Your task to perform on an android device: open app "ColorNote Notepad Notes" (install if not already installed) Image 0: 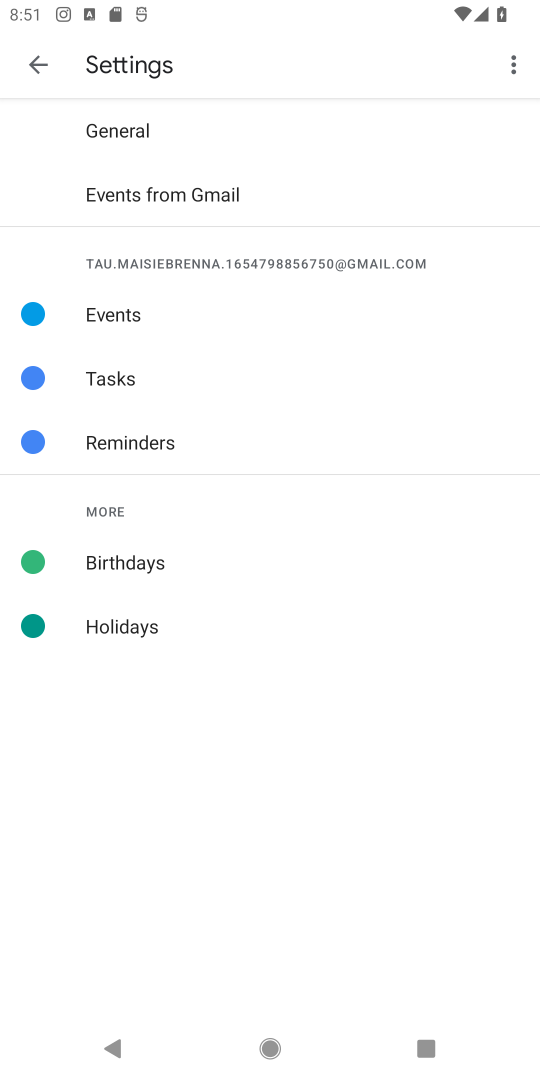
Step 0: press home button
Your task to perform on an android device: open app "ColorNote Notepad Notes" (install if not already installed) Image 1: 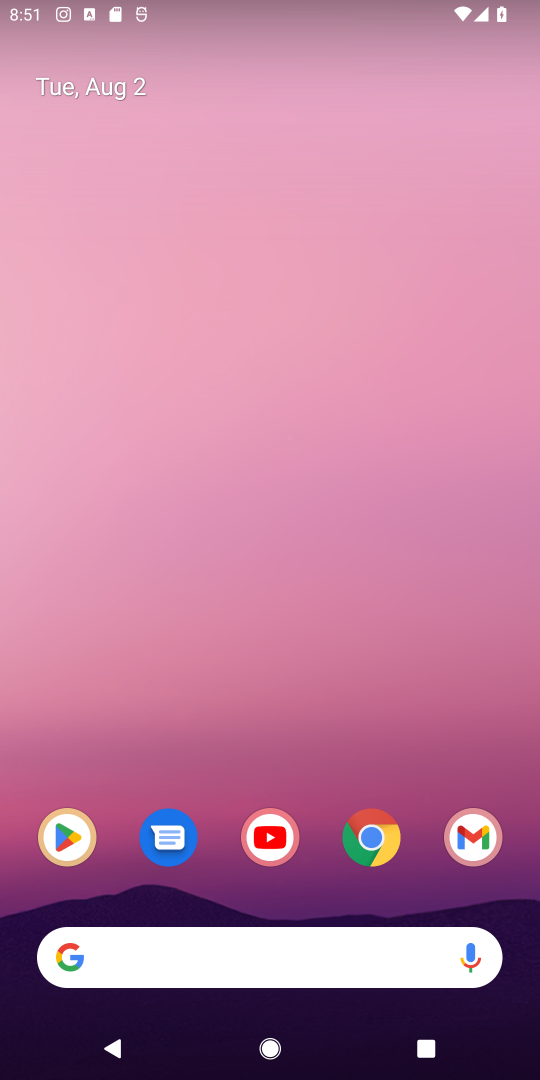
Step 1: click (76, 846)
Your task to perform on an android device: open app "ColorNote Notepad Notes" (install if not already installed) Image 2: 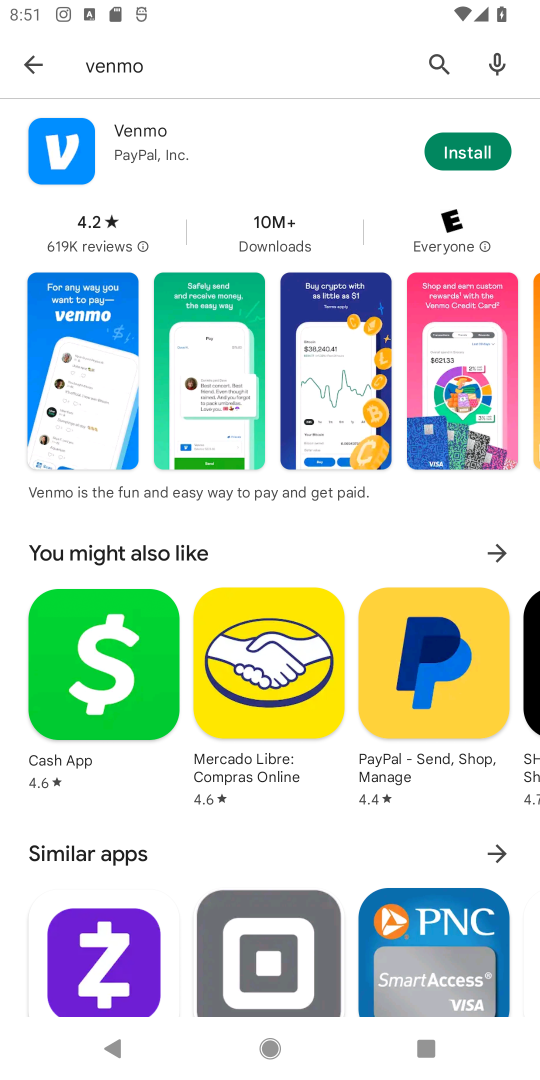
Step 2: click (443, 61)
Your task to perform on an android device: open app "ColorNote Notepad Notes" (install if not already installed) Image 3: 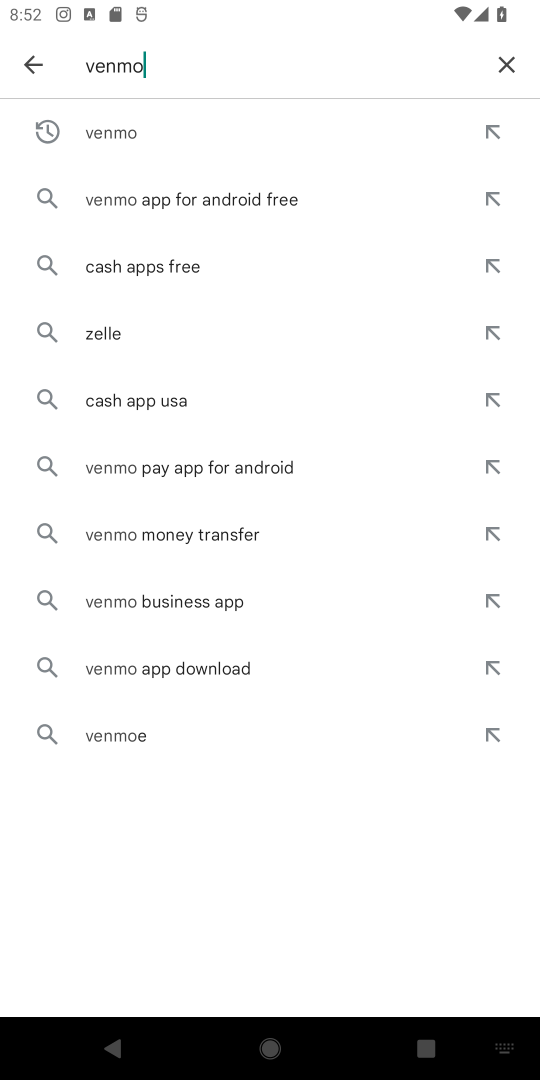
Step 3: click (500, 54)
Your task to perform on an android device: open app "ColorNote Notepad Notes" (install if not already installed) Image 4: 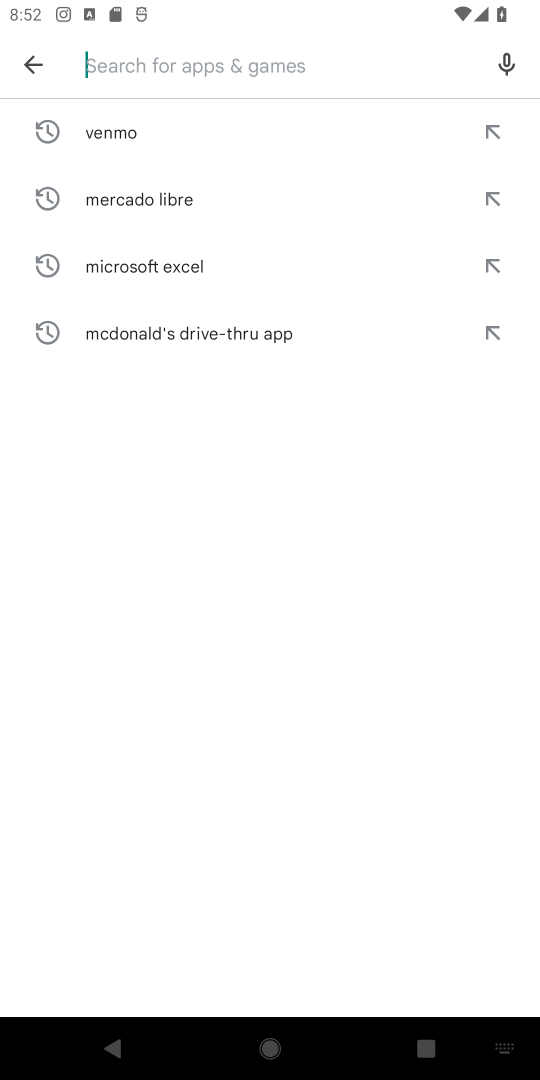
Step 4: type "ColorNote Notepad Notes"
Your task to perform on an android device: open app "ColorNote Notepad Notes" (install if not already installed) Image 5: 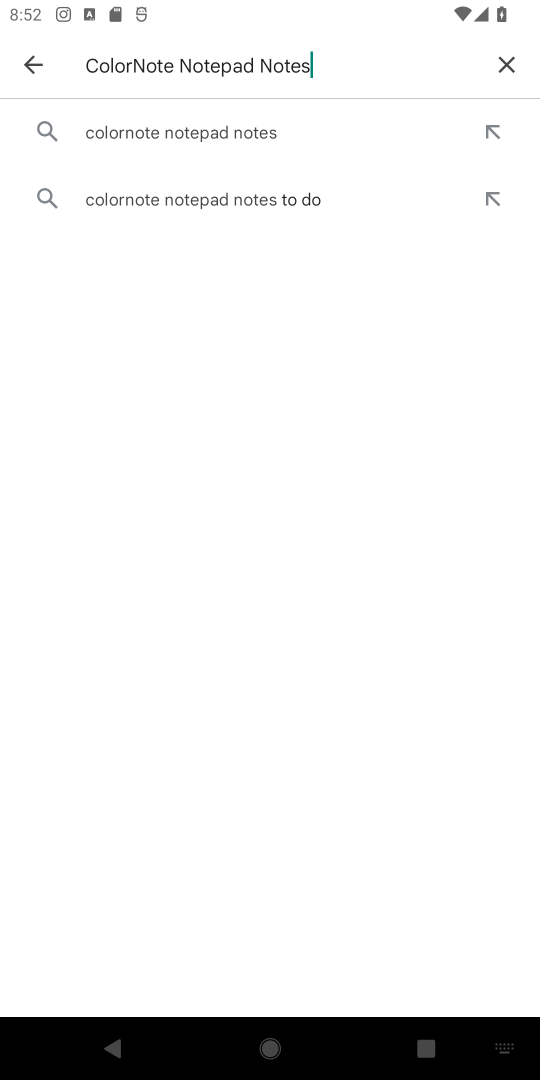
Step 5: click (184, 133)
Your task to perform on an android device: open app "ColorNote Notepad Notes" (install if not already installed) Image 6: 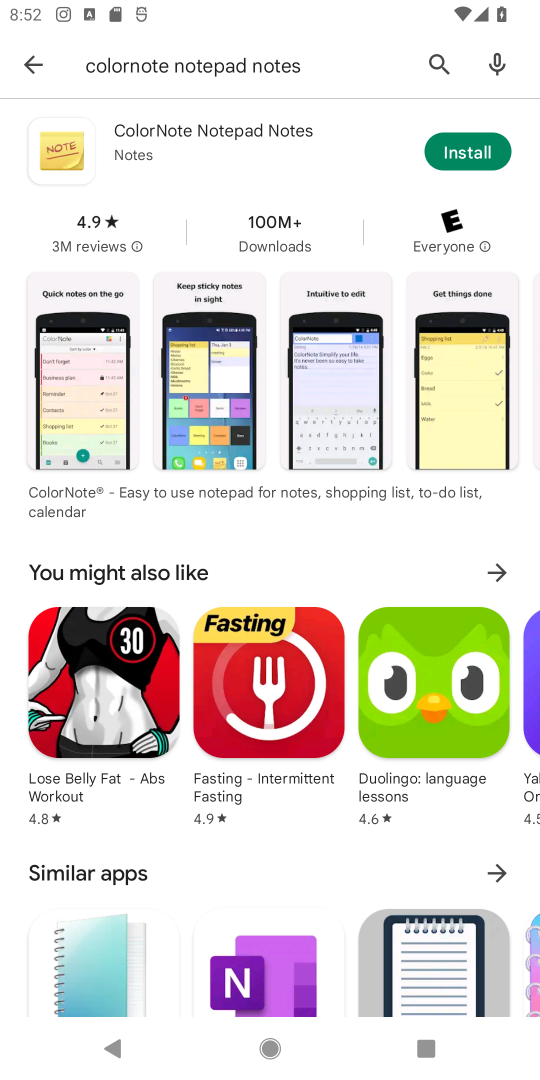
Step 6: click (462, 160)
Your task to perform on an android device: open app "ColorNote Notepad Notes" (install if not already installed) Image 7: 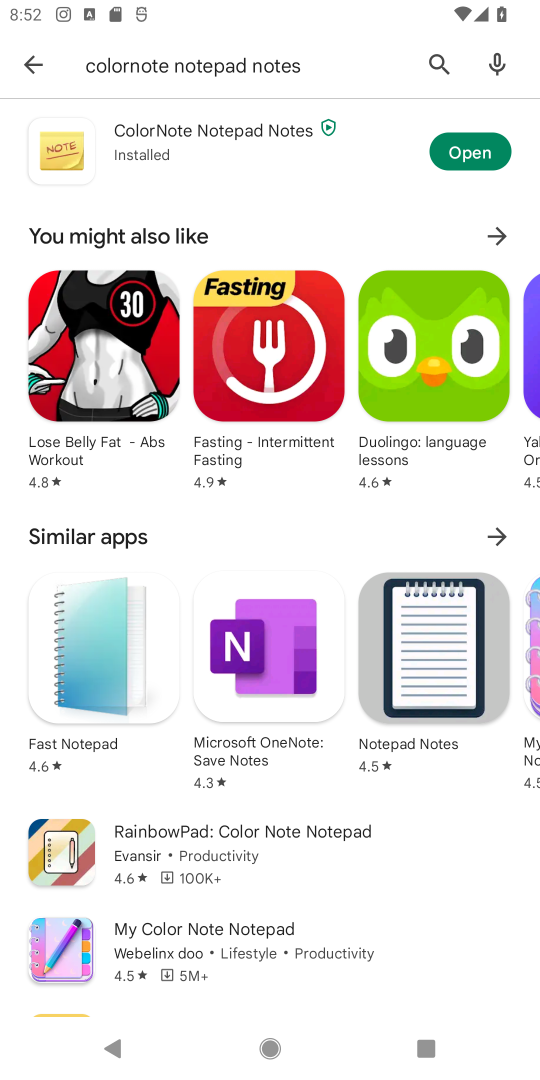
Step 7: click (462, 160)
Your task to perform on an android device: open app "ColorNote Notepad Notes" (install if not already installed) Image 8: 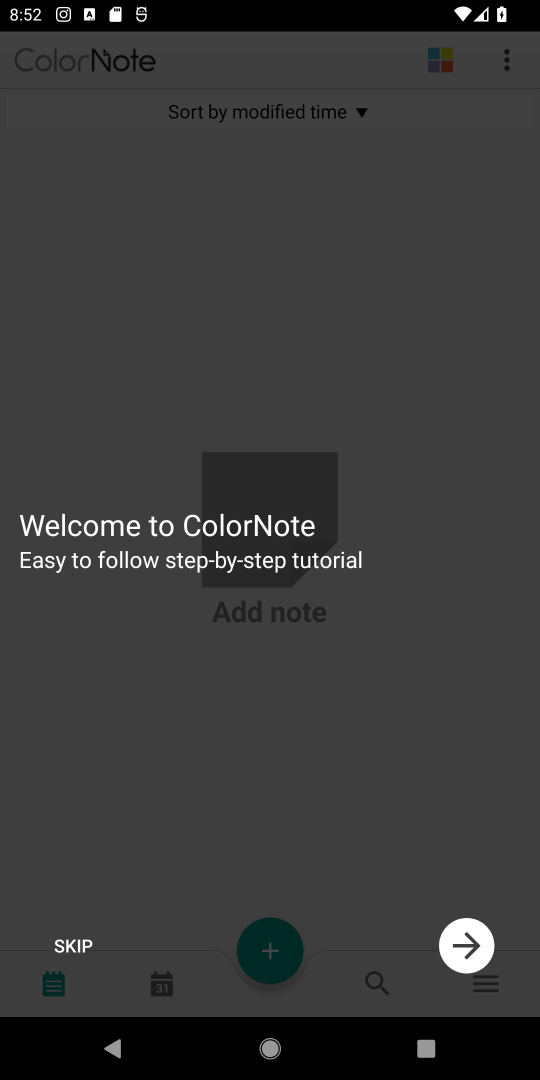
Step 8: task complete